Your task to perform on an android device: Go to notification settings Image 0: 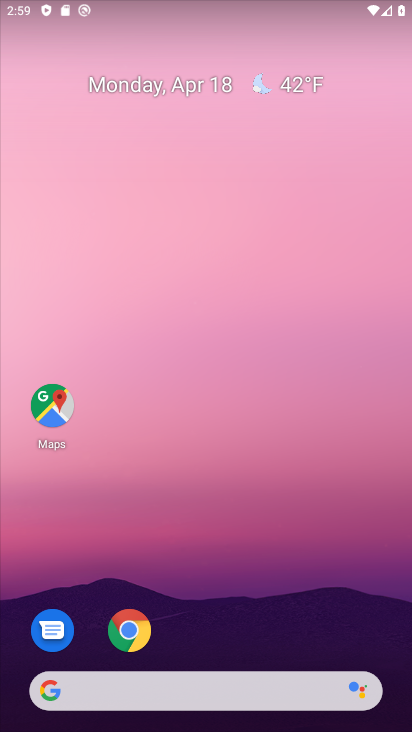
Step 0: drag from (254, 359) to (254, 233)
Your task to perform on an android device: Go to notification settings Image 1: 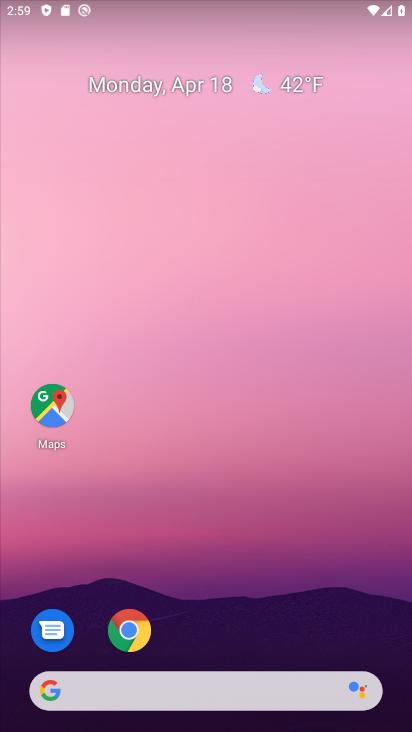
Step 1: drag from (281, 586) to (317, 243)
Your task to perform on an android device: Go to notification settings Image 2: 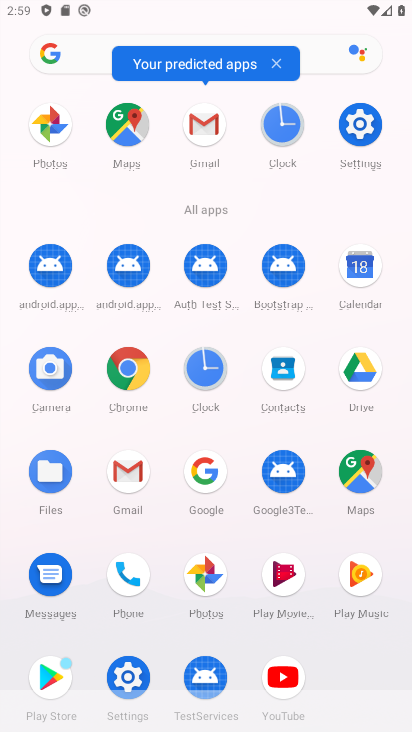
Step 2: click (350, 127)
Your task to perform on an android device: Go to notification settings Image 3: 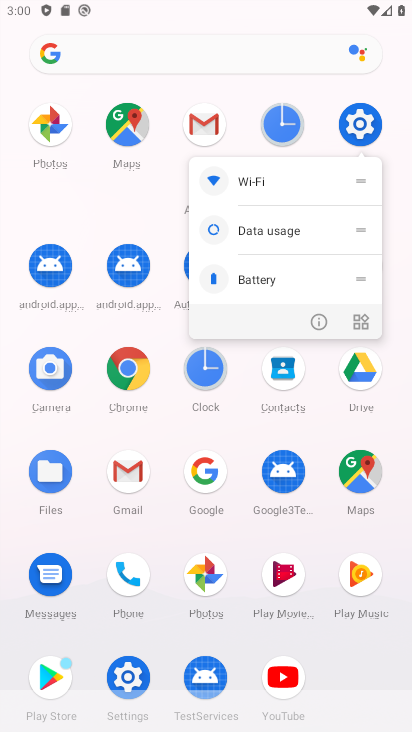
Step 3: click (351, 125)
Your task to perform on an android device: Go to notification settings Image 4: 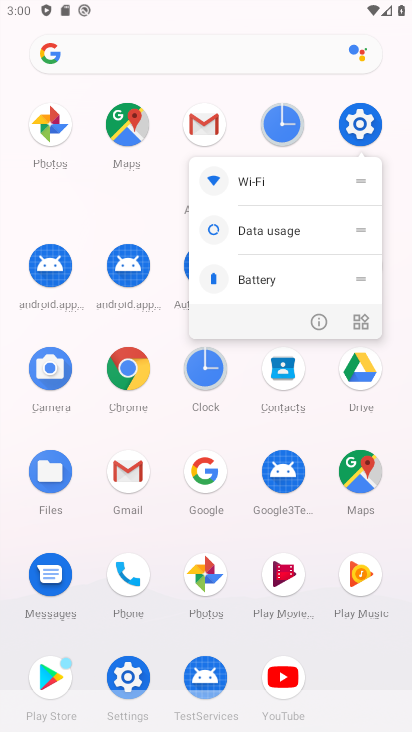
Step 4: click (350, 124)
Your task to perform on an android device: Go to notification settings Image 5: 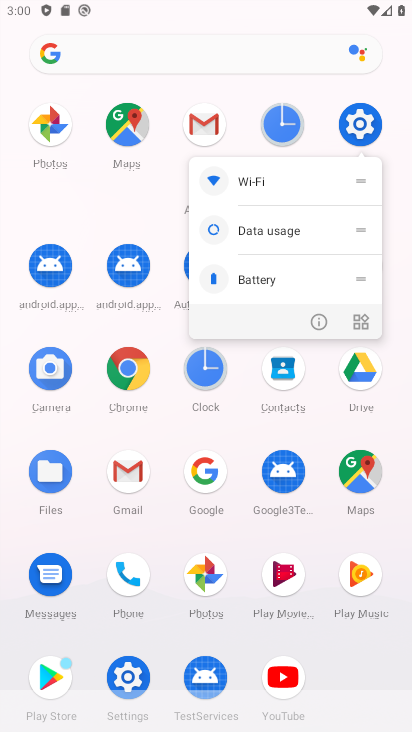
Step 5: click (348, 124)
Your task to perform on an android device: Go to notification settings Image 6: 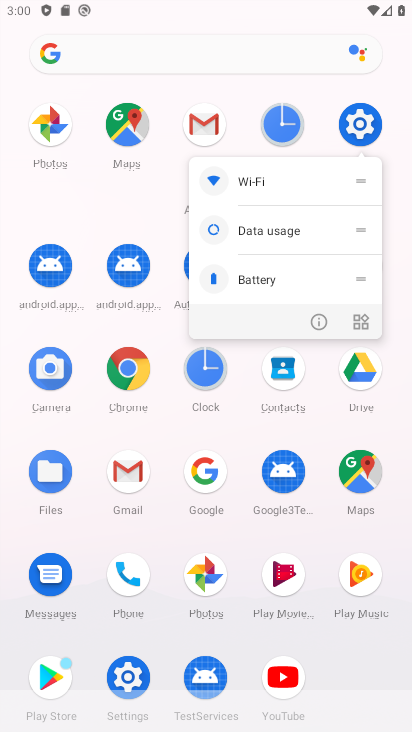
Step 6: click (351, 120)
Your task to perform on an android device: Go to notification settings Image 7: 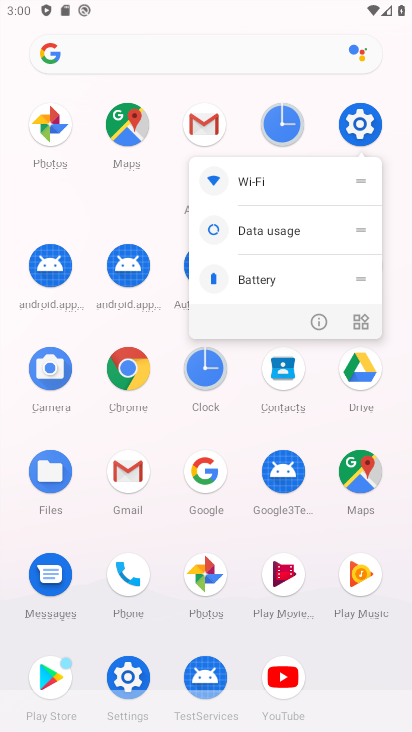
Step 7: click (351, 120)
Your task to perform on an android device: Go to notification settings Image 8: 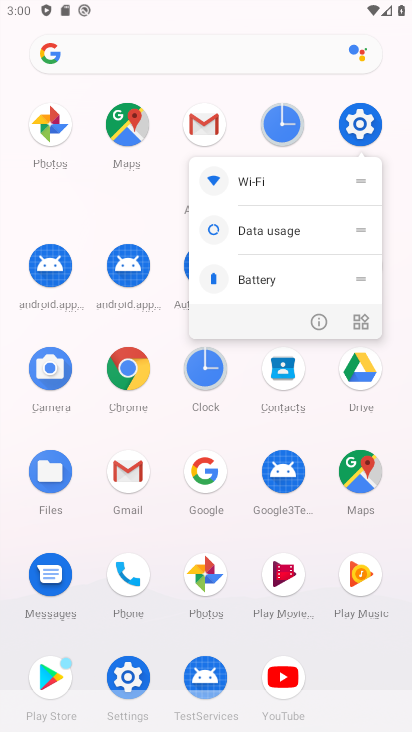
Step 8: click (359, 120)
Your task to perform on an android device: Go to notification settings Image 9: 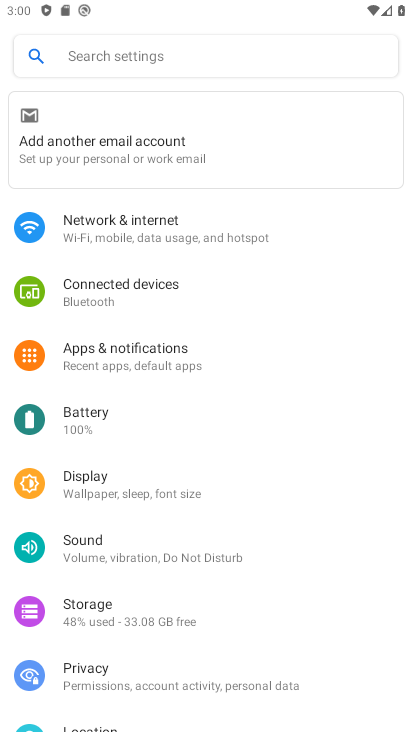
Step 9: click (108, 354)
Your task to perform on an android device: Go to notification settings Image 10: 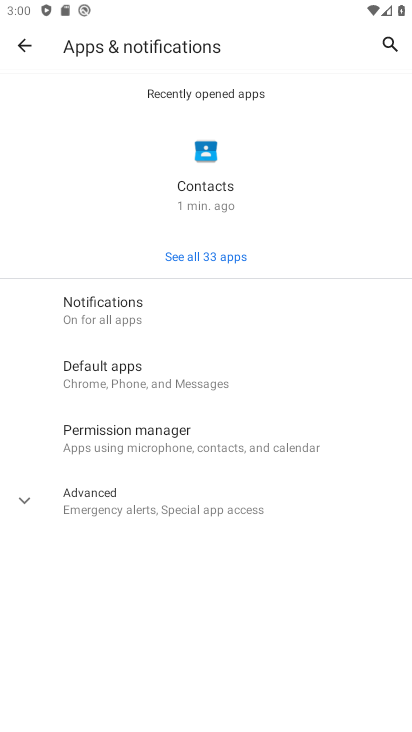
Step 10: click (123, 307)
Your task to perform on an android device: Go to notification settings Image 11: 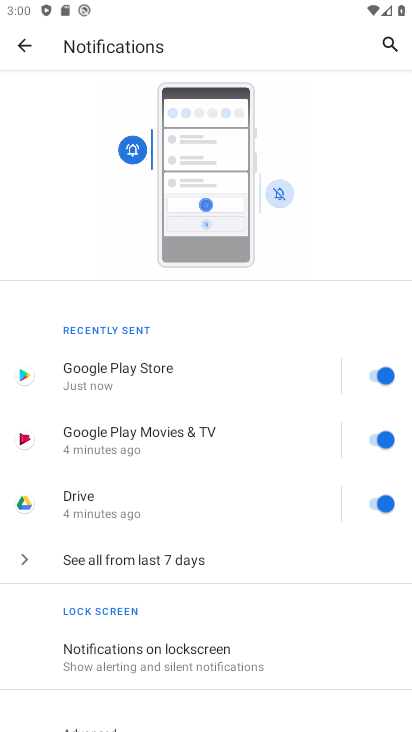
Step 11: drag from (252, 634) to (263, 577)
Your task to perform on an android device: Go to notification settings Image 12: 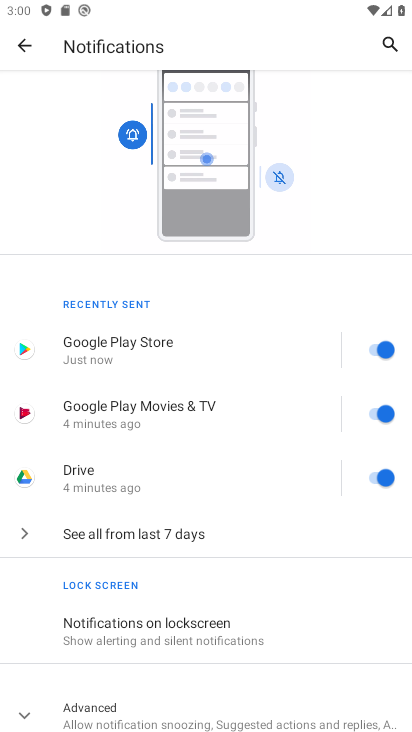
Step 12: click (223, 537)
Your task to perform on an android device: Go to notification settings Image 13: 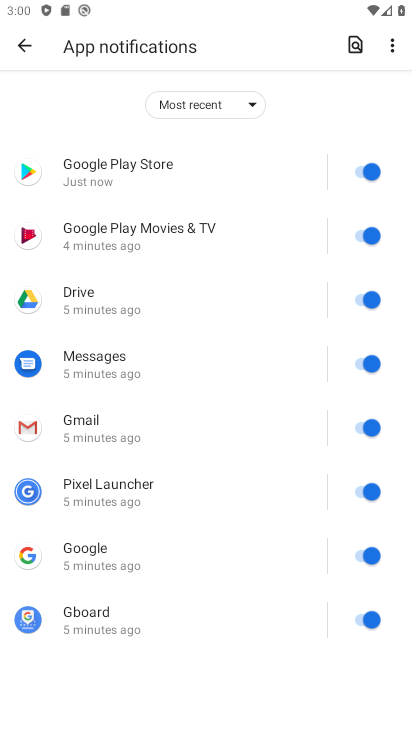
Step 13: click (356, 174)
Your task to perform on an android device: Go to notification settings Image 14: 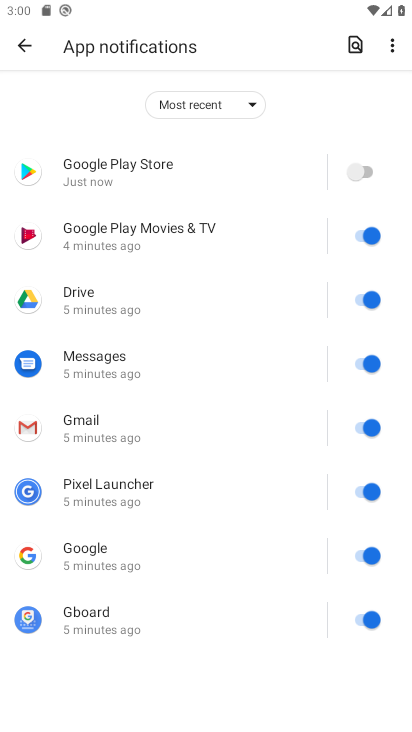
Step 14: click (364, 236)
Your task to perform on an android device: Go to notification settings Image 15: 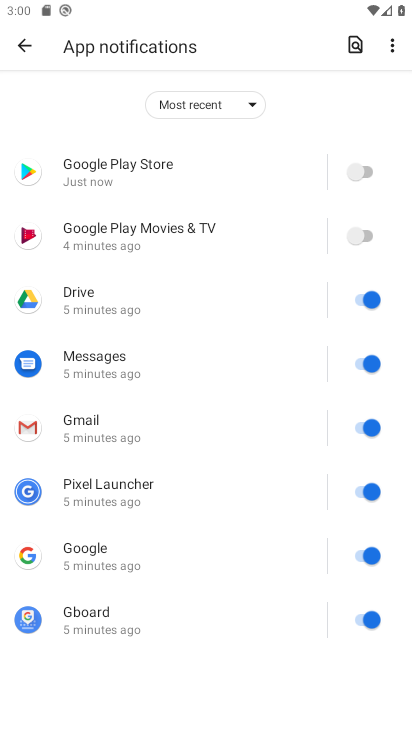
Step 15: click (369, 162)
Your task to perform on an android device: Go to notification settings Image 16: 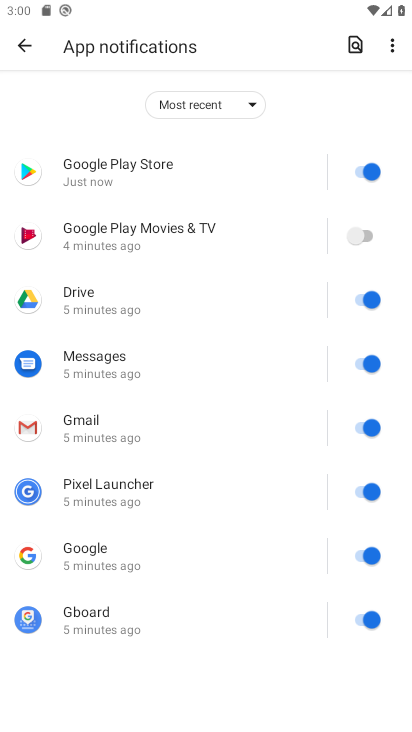
Step 16: click (361, 242)
Your task to perform on an android device: Go to notification settings Image 17: 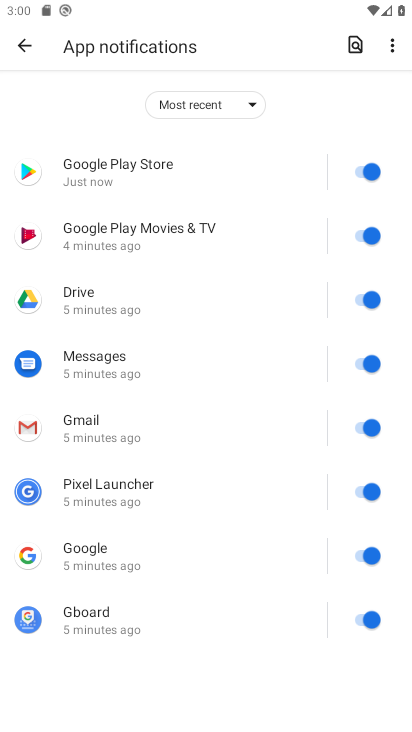
Step 17: task complete